Your task to perform on an android device: search for starred emails in the gmail app Image 0: 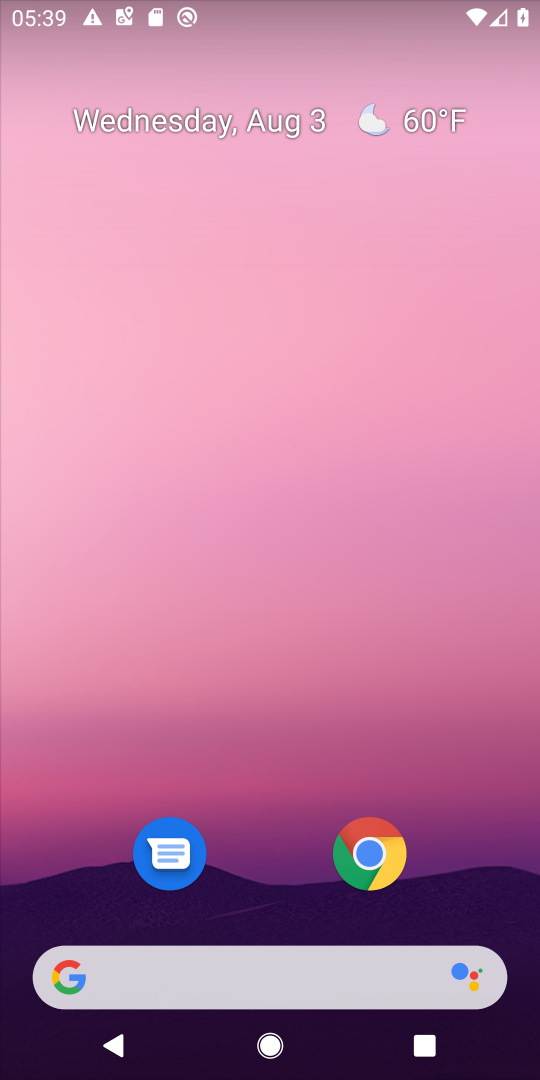
Step 0: drag from (289, 673) to (272, 212)
Your task to perform on an android device: search for starred emails in the gmail app Image 1: 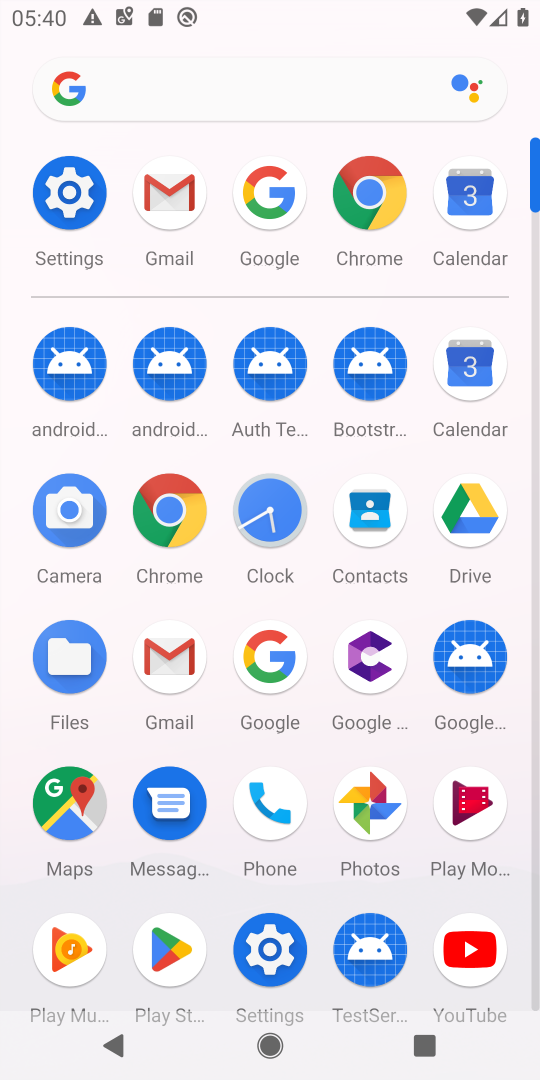
Step 1: click (180, 651)
Your task to perform on an android device: search for starred emails in the gmail app Image 2: 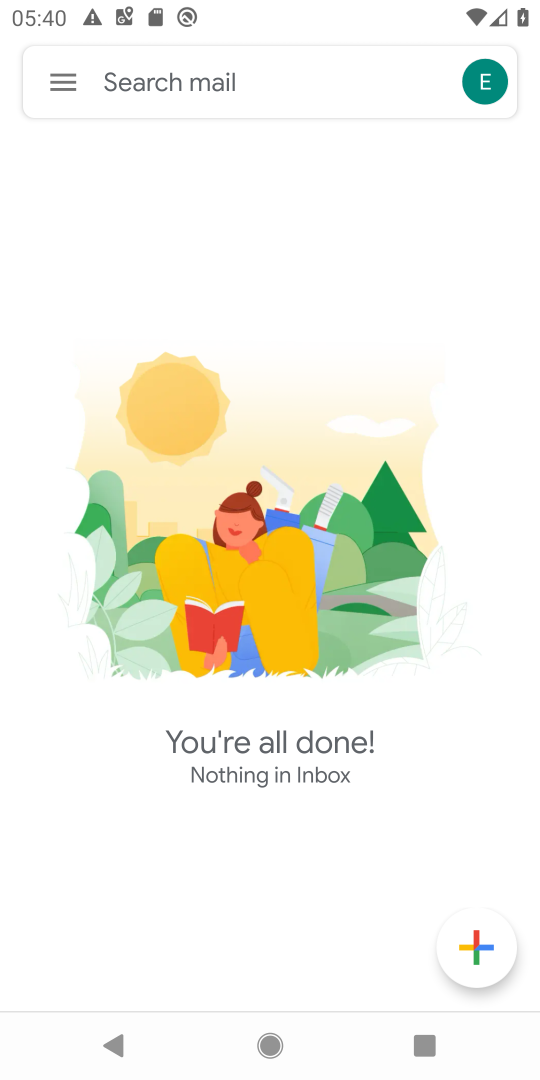
Step 2: click (57, 79)
Your task to perform on an android device: search for starred emails in the gmail app Image 3: 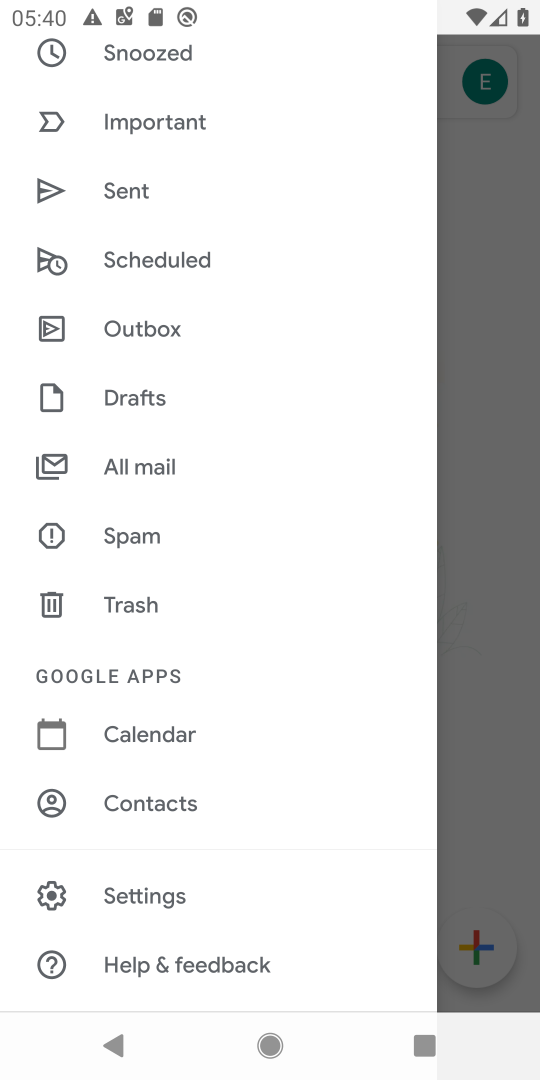
Step 3: drag from (184, 201) to (129, 787)
Your task to perform on an android device: search for starred emails in the gmail app Image 4: 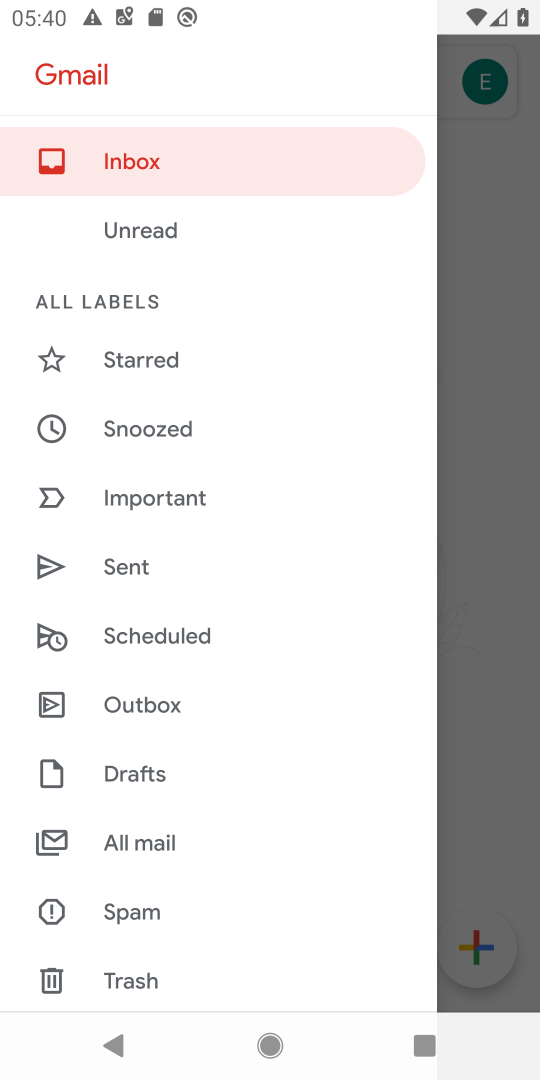
Step 4: click (142, 356)
Your task to perform on an android device: search for starred emails in the gmail app Image 5: 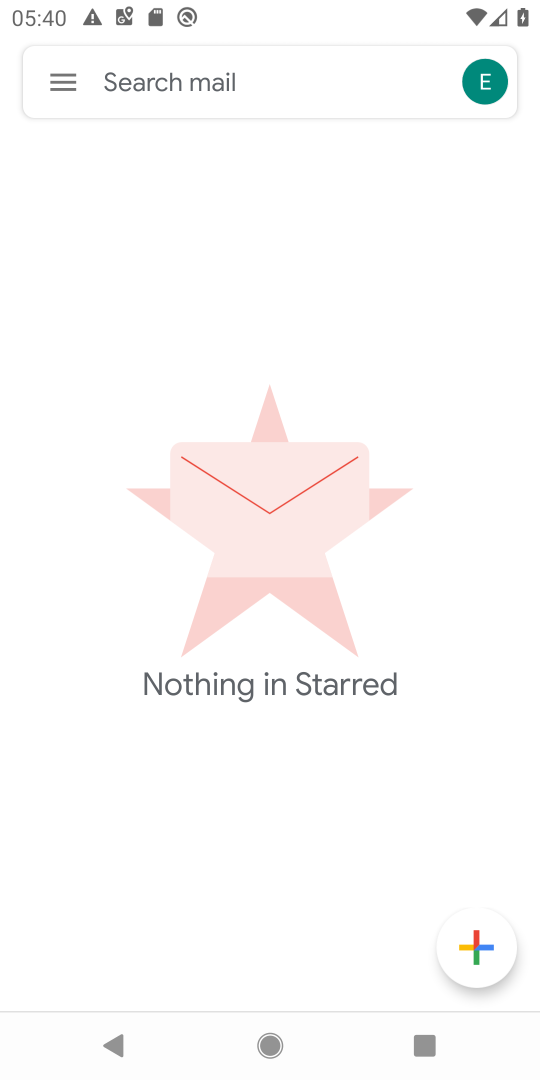
Step 5: task complete